Your task to perform on an android device: Open Chrome and go to settings Image 0: 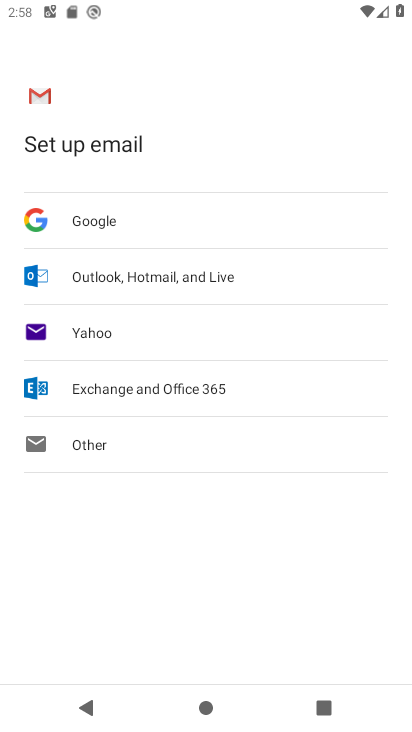
Step 0: drag from (252, 612) to (229, 255)
Your task to perform on an android device: Open Chrome and go to settings Image 1: 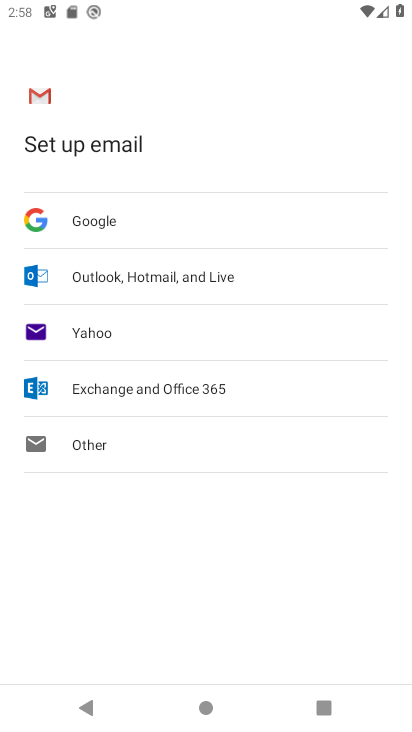
Step 1: press home button
Your task to perform on an android device: Open Chrome and go to settings Image 2: 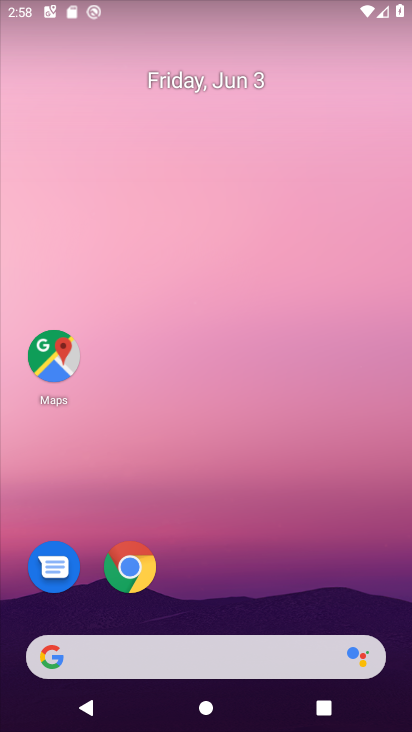
Step 2: click (135, 562)
Your task to perform on an android device: Open Chrome and go to settings Image 3: 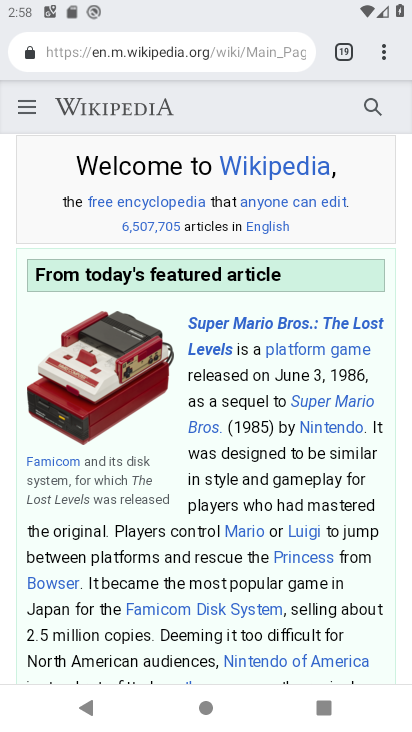
Step 3: click (377, 47)
Your task to perform on an android device: Open Chrome and go to settings Image 4: 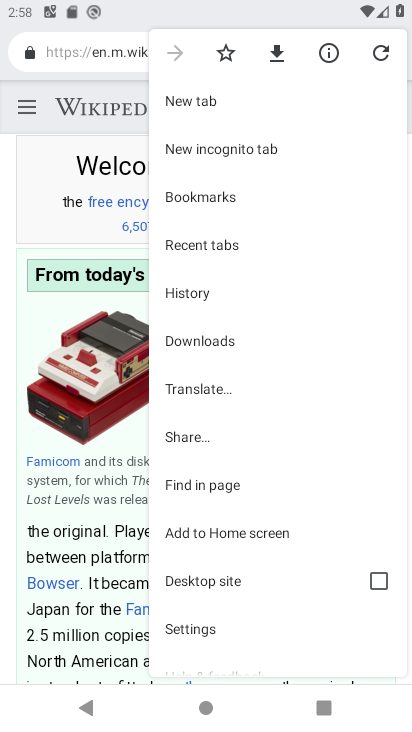
Step 4: click (220, 620)
Your task to perform on an android device: Open Chrome and go to settings Image 5: 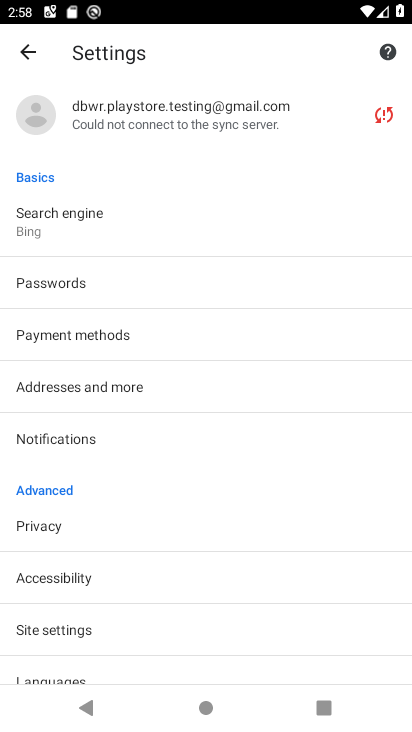
Step 5: task complete